Your task to perform on an android device: What is the recent news? Image 0: 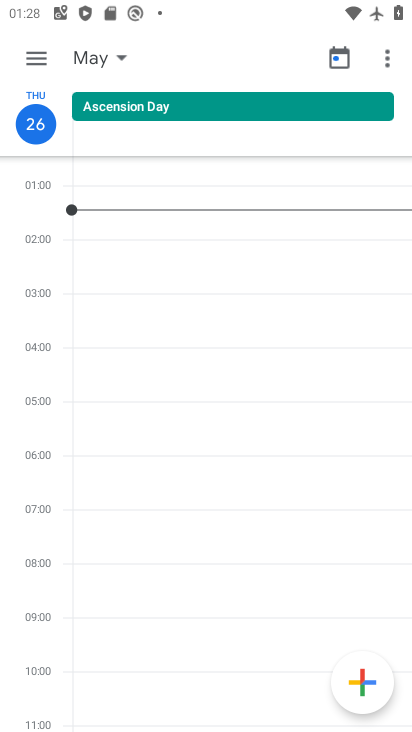
Step 0: press home button
Your task to perform on an android device: What is the recent news? Image 1: 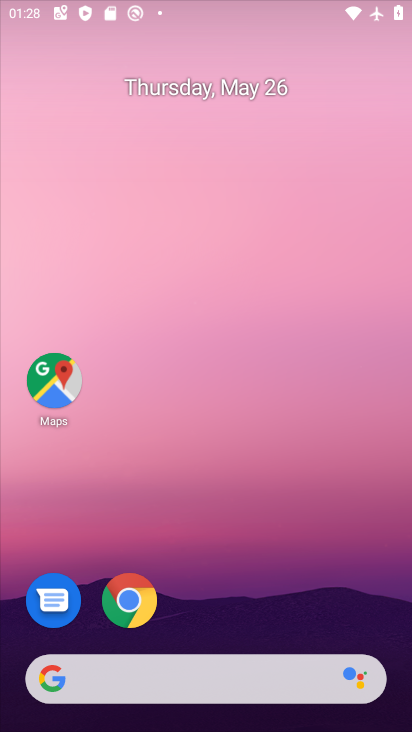
Step 1: drag from (261, 526) to (310, 2)
Your task to perform on an android device: What is the recent news? Image 2: 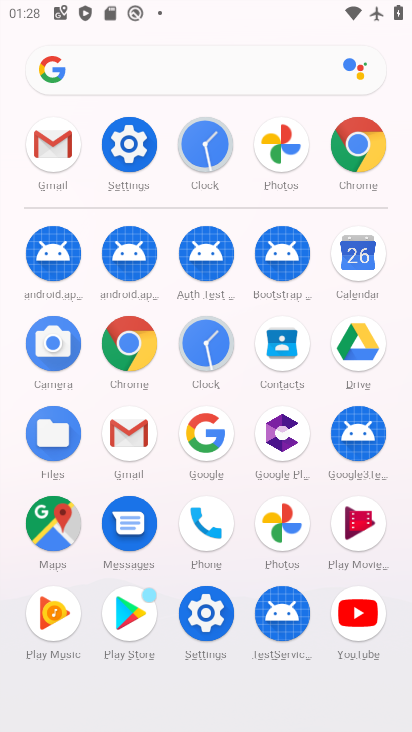
Step 2: click (140, 340)
Your task to perform on an android device: What is the recent news? Image 3: 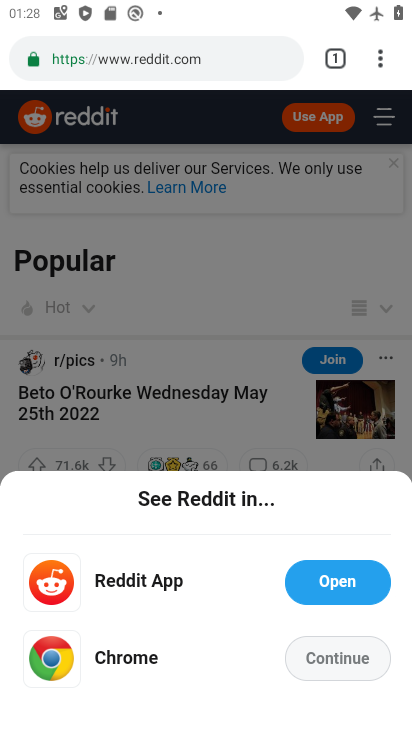
Step 3: click (202, 52)
Your task to perform on an android device: What is the recent news? Image 4: 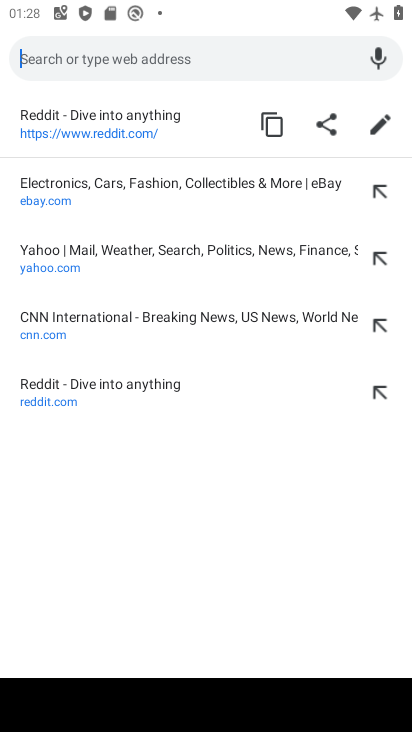
Step 4: type "news"
Your task to perform on an android device: What is the recent news? Image 5: 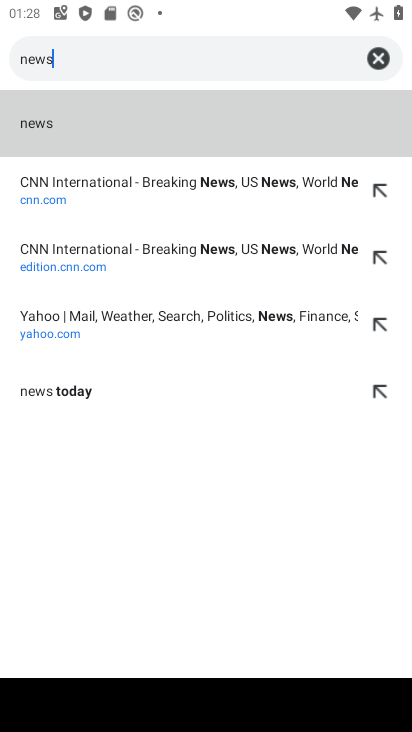
Step 5: click (32, 117)
Your task to perform on an android device: What is the recent news? Image 6: 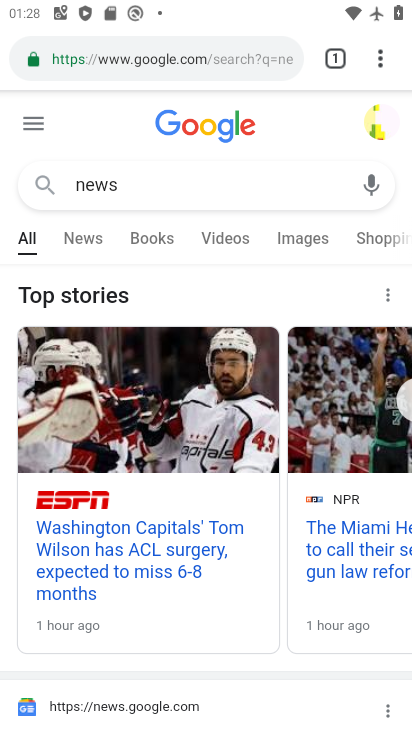
Step 6: click (85, 235)
Your task to perform on an android device: What is the recent news? Image 7: 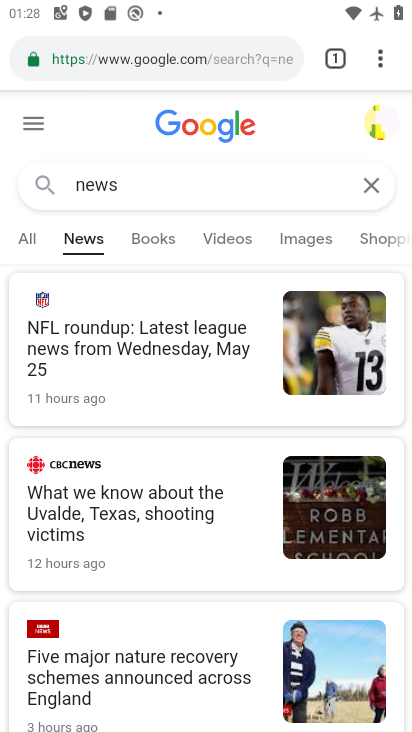
Step 7: task complete